Your task to perform on an android device: open the mobile data screen to see how much data has been used Image 0: 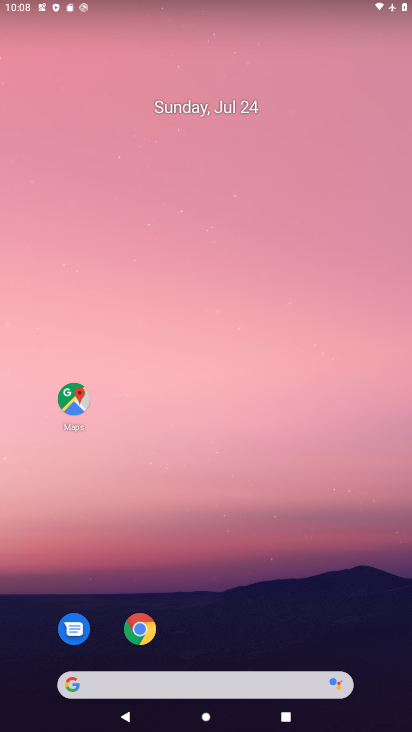
Step 0: drag from (241, 634) to (236, 99)
Your task to perform on an android device: open the mobile data screen to see how much data has been used Image 1: 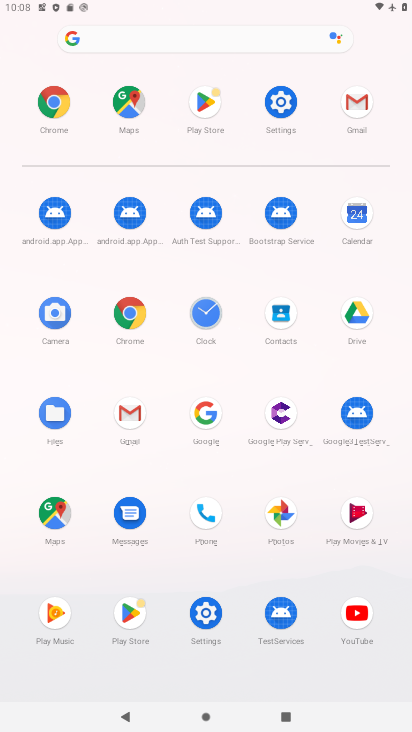
Step 1: click (305, 118)
Your task to perform on an android device: open the mobile data screen to see how much data has been used Image 2: 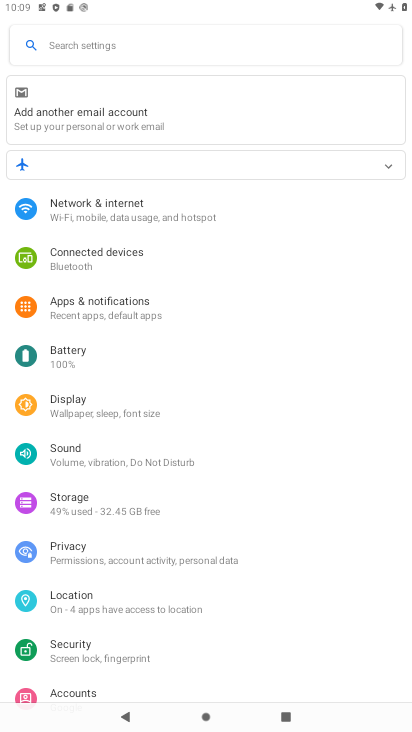
Step 2: click (83, 224)
Your task to perform on an android device: open the mobile data screen to see how much data has been used Image 3: 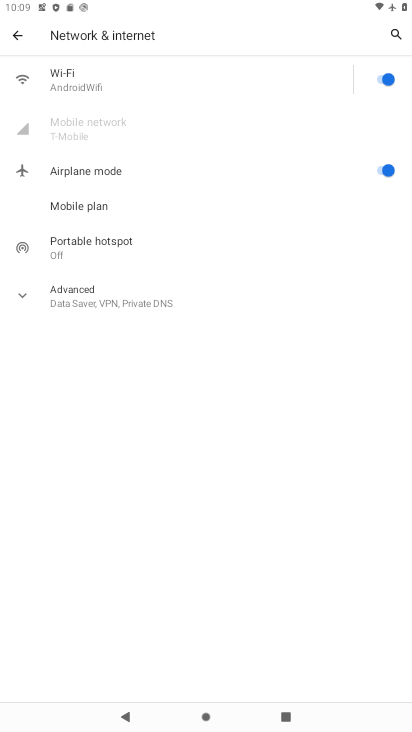
Step 3: task complete